Your task to perform on an android device: Open wifi settings Image 0: 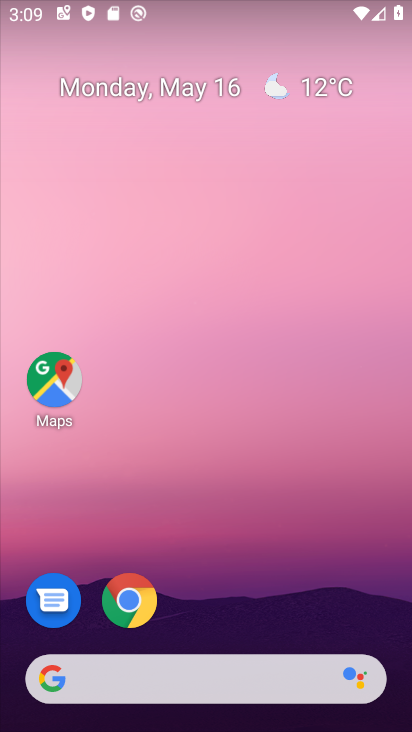
Step 0: drag from (208, 653) to (356, 6)
Your task to perform on an android device: Open wifi settings Image 1: 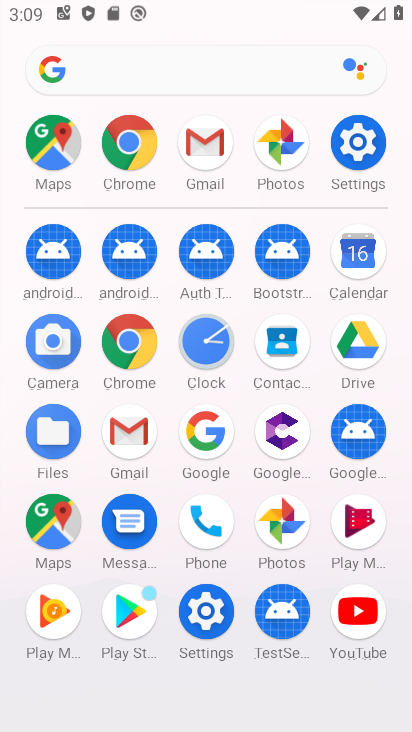
Step 1: click (364, 134)
Your task to perform on an android device: Open wifi settings Image 2: 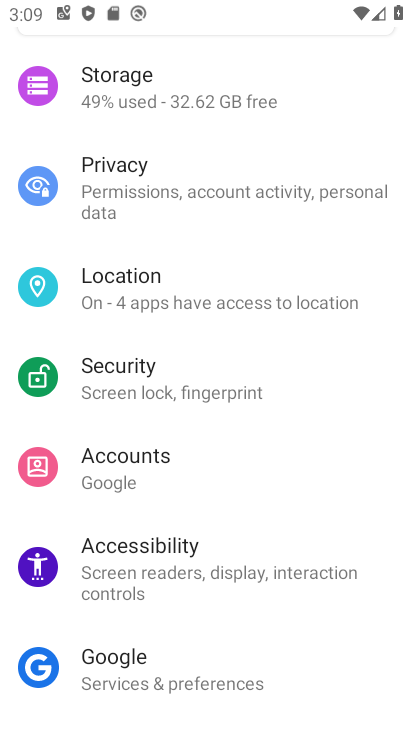
Step 2: drag from (168, 158) to (184, 518)
Your task to perform on an android device: Open wifi settings Image 3: 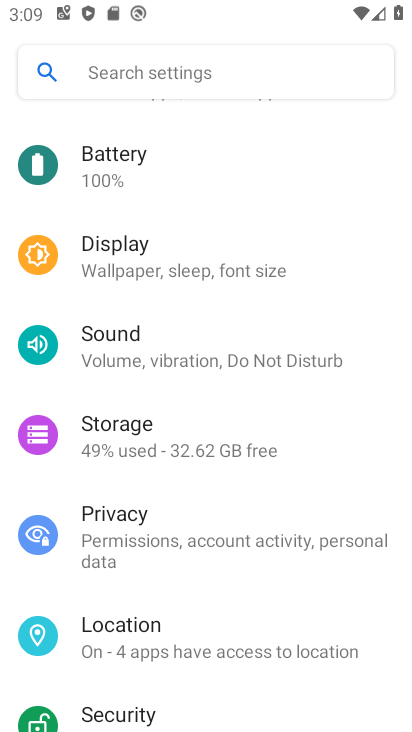
Step 3: drag from (264, 267) to (178, 728)
Your task to perform on an android device: Open wifi settings Image 4: 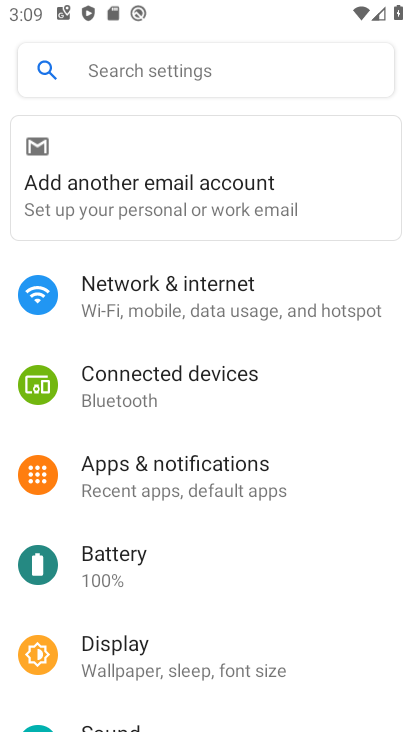
Step 4: click (128, 298)
Your task to perform on an android device: Open wifi settings Image 5: 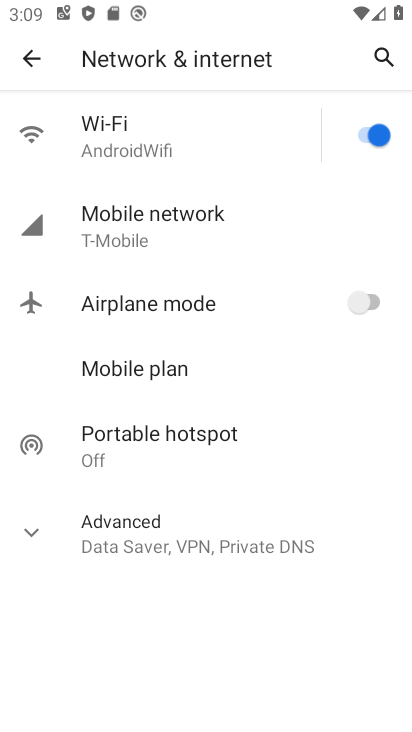
Step 5: click (179, 121)
Your task to perform on an android device: Open wifi settings Image 6: 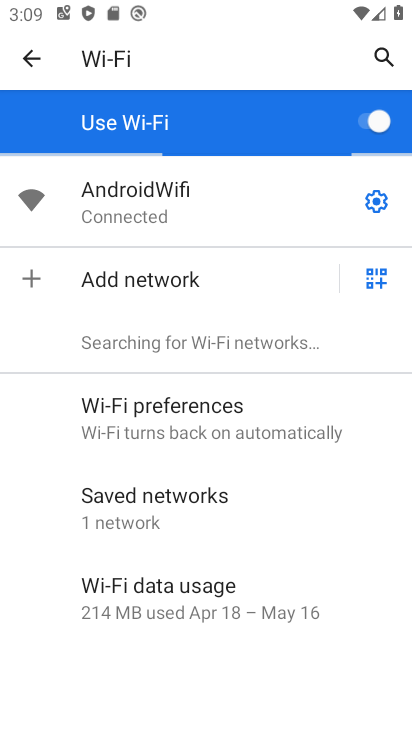
Step 6: task complete